Your task to perform on an android device: Open ESPN.com Image 0: 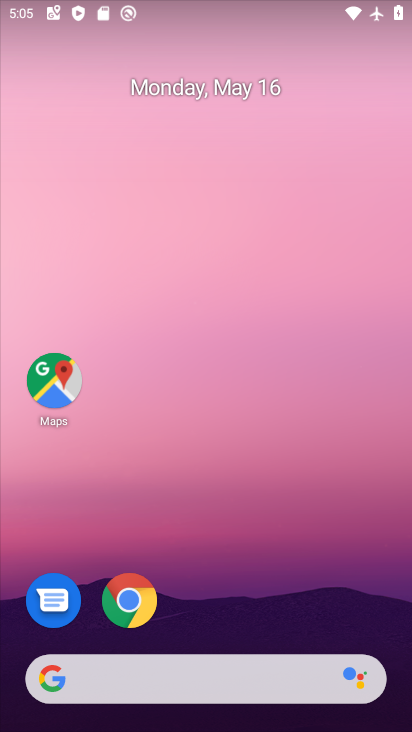
Step 0: click (98, 609)
Your task to perform on an android device: Open ESPN.com Image 1: 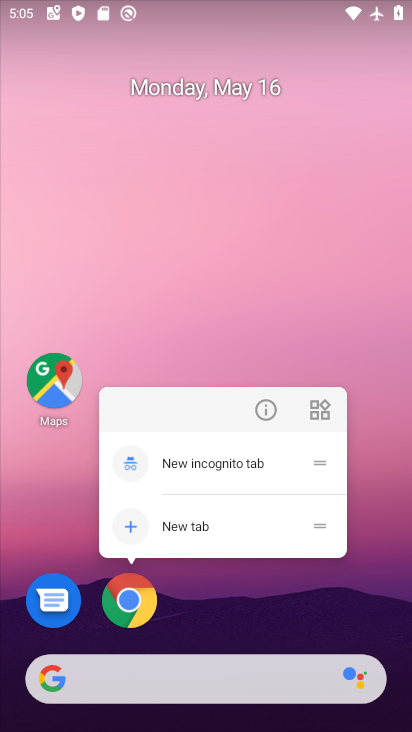
Step 1: click (125, 613)
Your task to perform on an android device: Open ESPN.com Image 2: 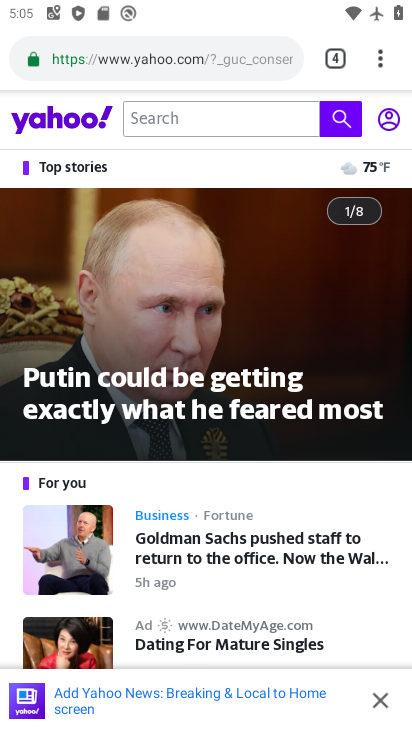
Step 2: click (347, 44)
Your task to perform on an android device: Open ESPN.com Image 3: 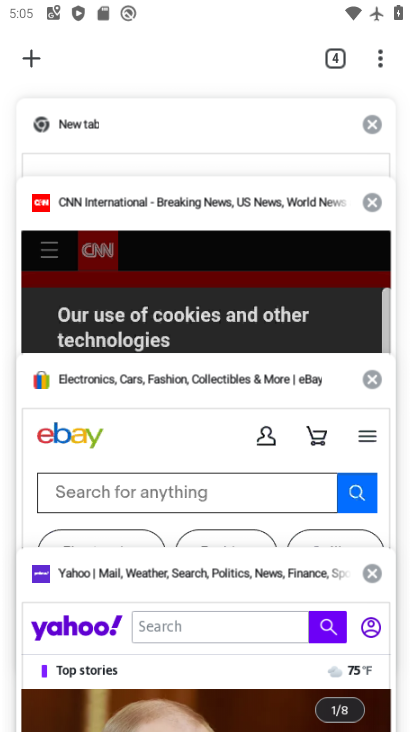
Step 3: click (23, 56)
Your task to perform on an android device: Open ESPN.com Image 4: 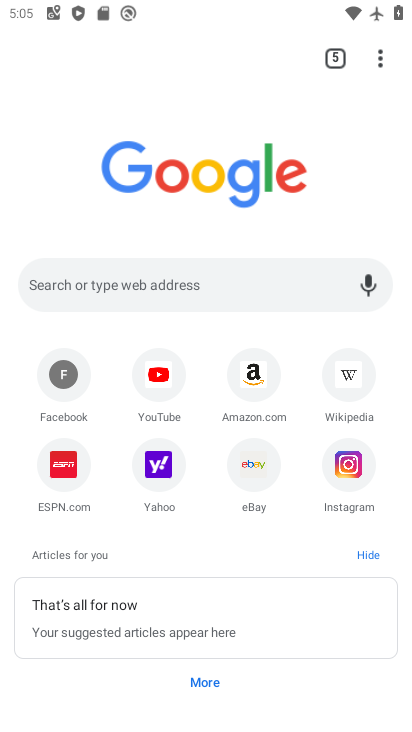
Step 4: click (61, 465)
Your task to perform on an android device: Open ESPN.com Image 5: 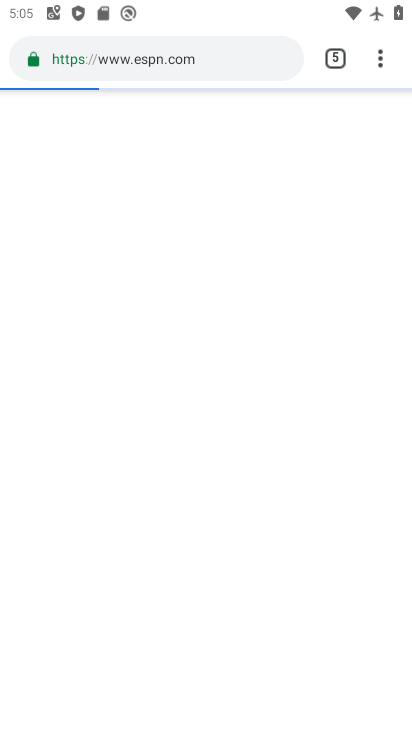
Step 5: task complete